Your task to perform on an android device: toggle wifi Image 0: 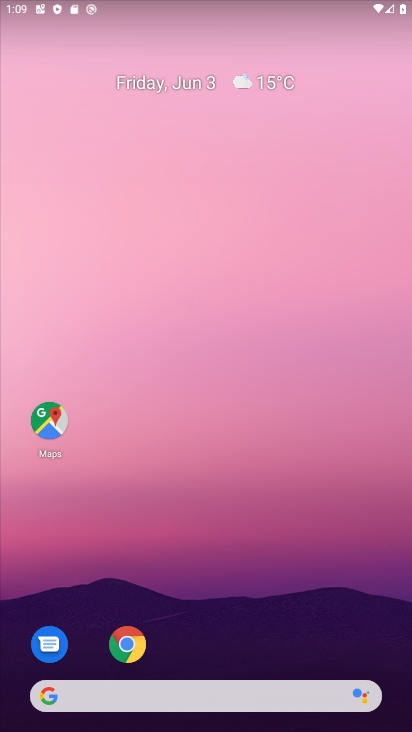
Step 0: drag from (215, 617) to (280, 104)
Your task to perform on an android device: toggle wifi Image 1: 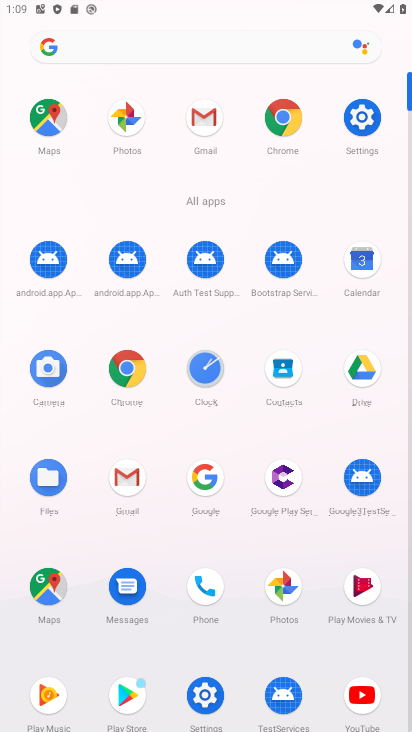
Step 1: click (372, 130)
Your task to perform on an android device: toggle wifi Image 2: 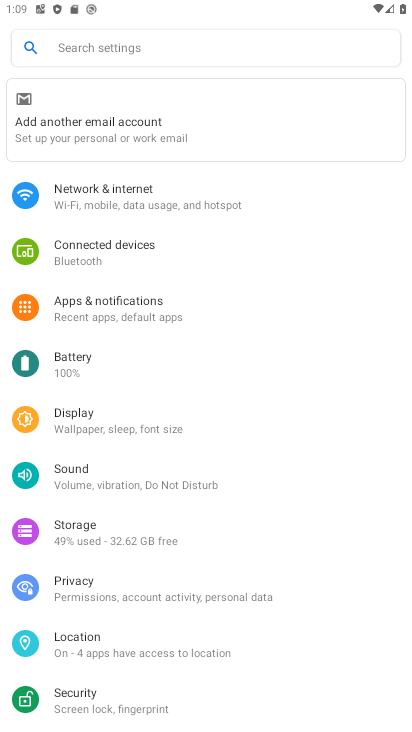
Step 2: click (136, 197)
Your task to perform on an android device: toggle wifi Image 3: 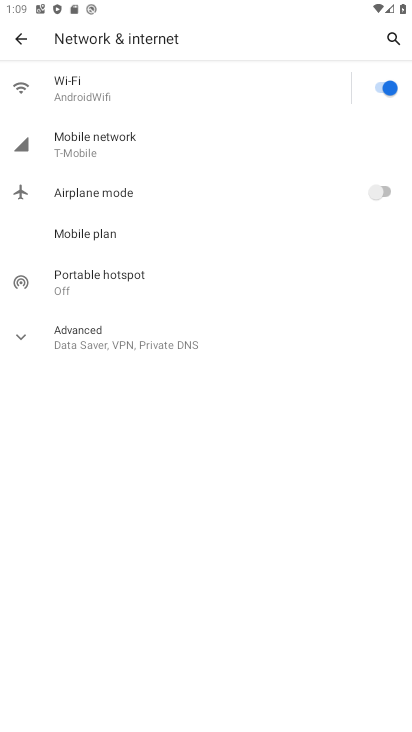
Step 3: click (371, 93)
Your task to perform on an android device: toggle wifi Image 4: 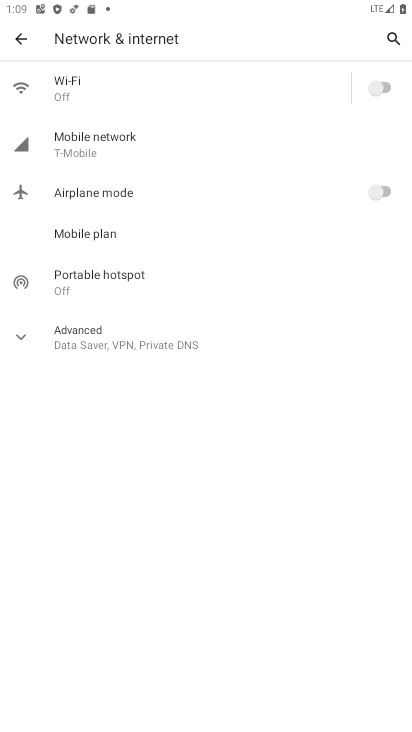
Step 4: task complete